Your task to perform on an android device: show emergency info Image 0: 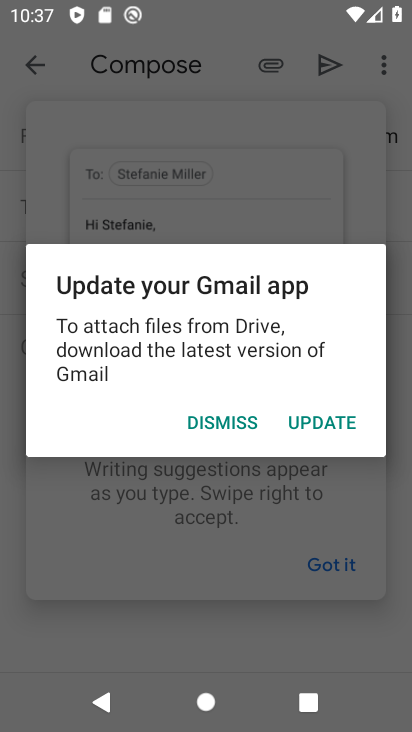
Step 0: press back button
Your task to perform on an android device: show emergency info Image 1: 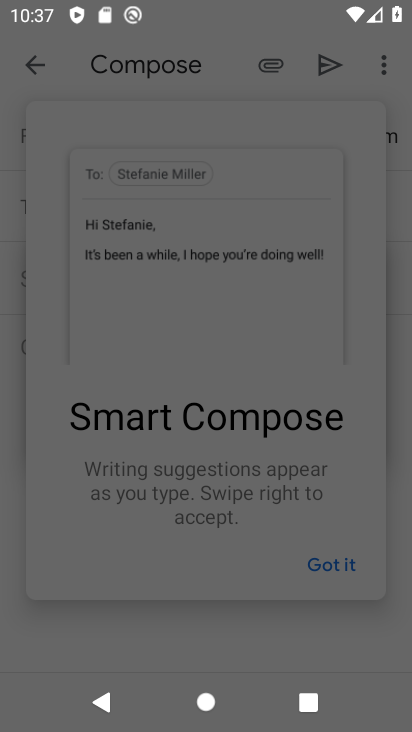
Step 1: press home button
Your task to perform on an android device: show emergency info Image 2: 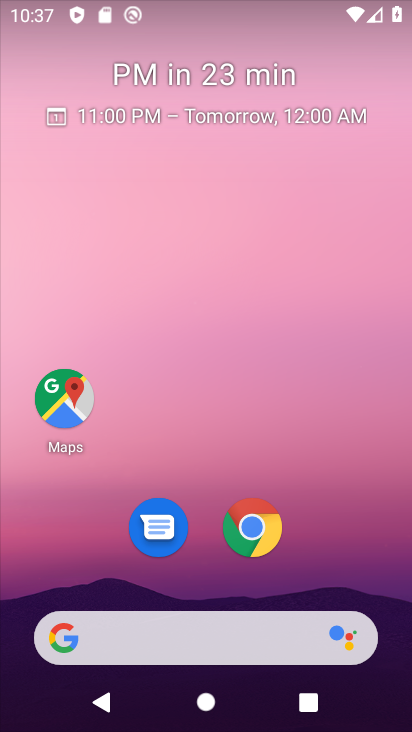
Step 2: drag from (209, 560) to (333, 16)
Your task to perform on an android device: show emergency info Image 3: 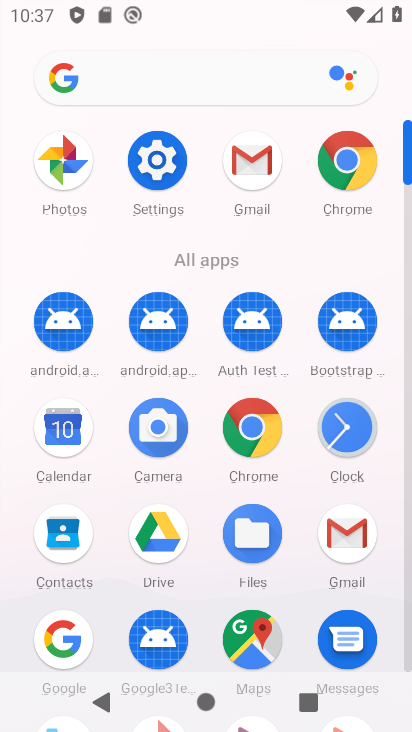
Step 3: click (155, 144)
Your task to perform on an android device: show emergency info Image 4: 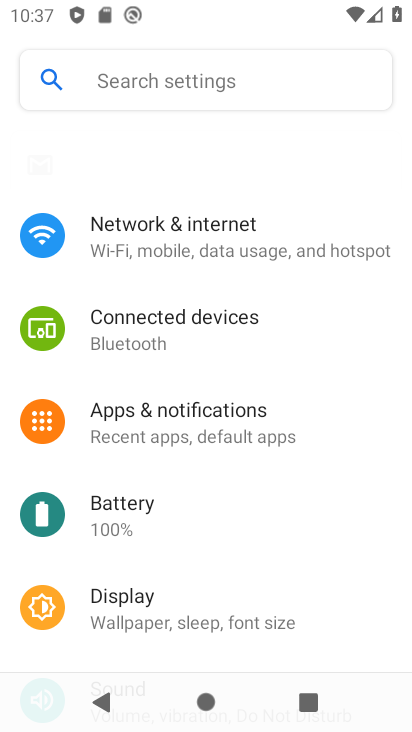
Step 4: drag from (175, 586) to (347, 23)
Your task to perform on an android device: show emergency info Image 5: 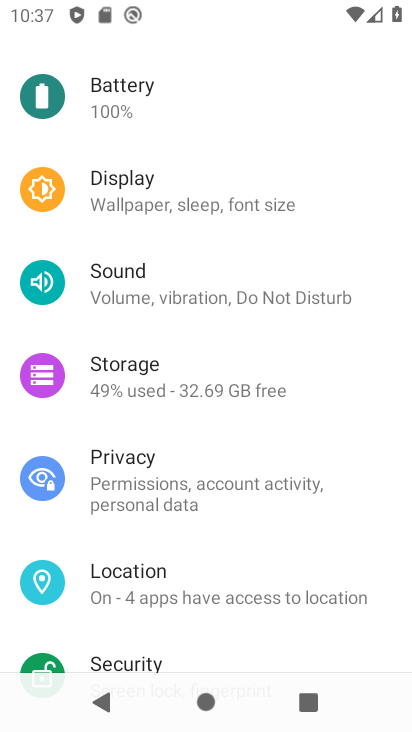
Step 5: drag from (168, 593) to (329, 3)
Your task to perform on an android device: show emergency info Image 6: 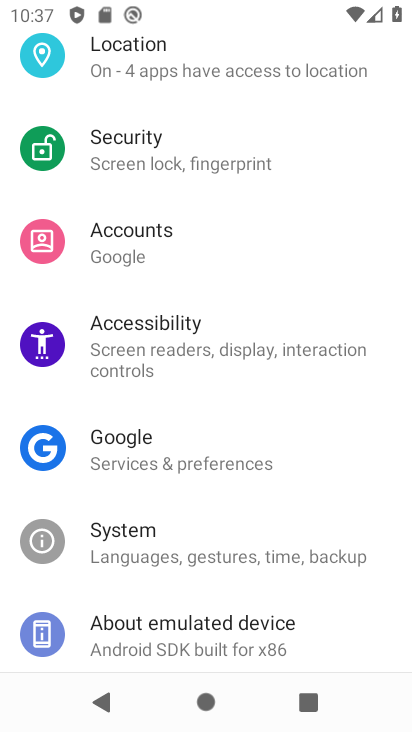
Step 6: click (182, 632)
Your task to perform on an android device: show emergency info Image 7: 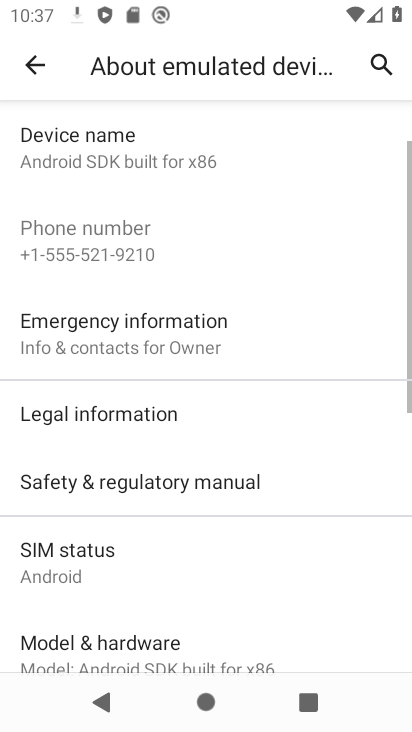
Step 7: click (134, 329)
Your task to perform on an android device: show emergency info Image 8: 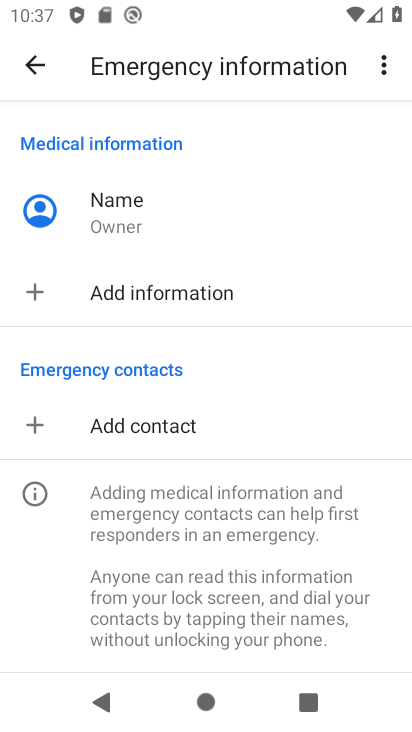
Step 8: task complete